Your task to perform on an android device: turn off priority inbox in the gmail app Image 0: 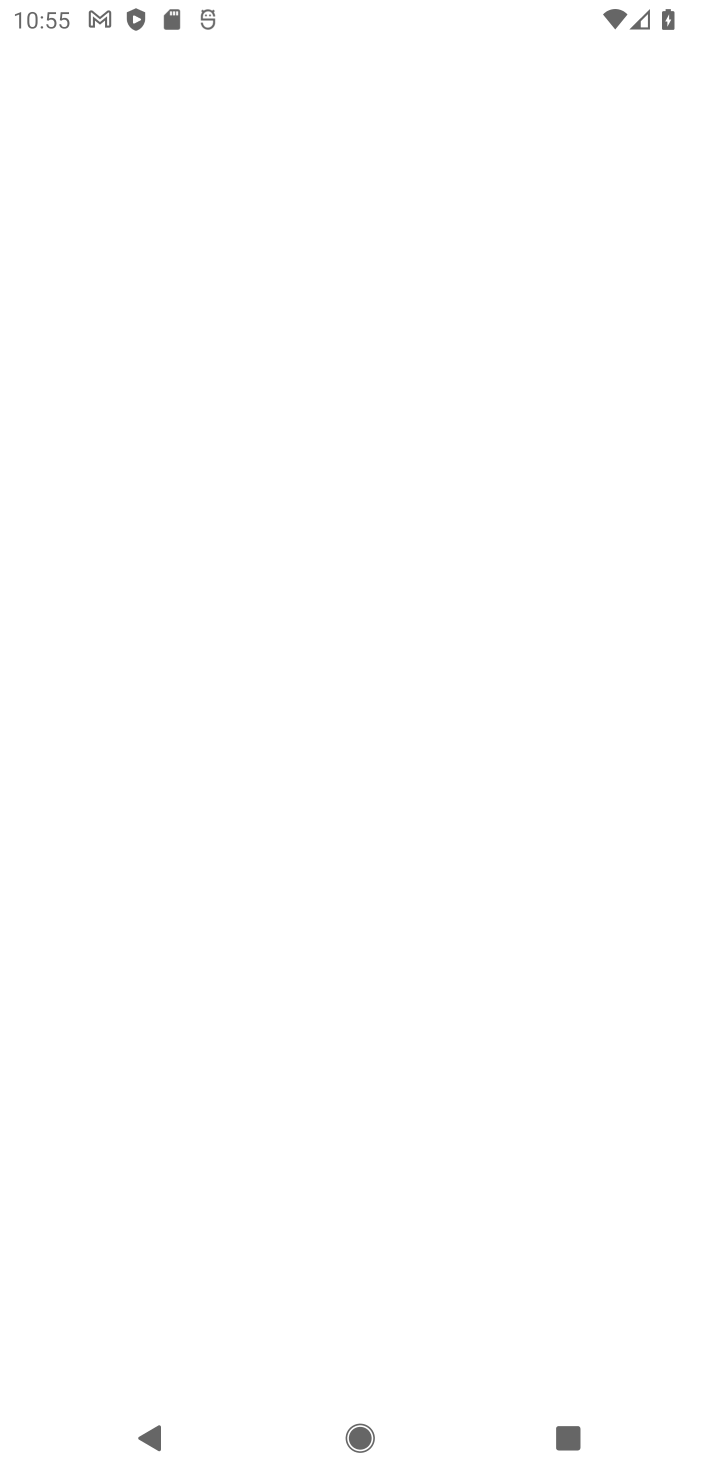
Step 0: press home button
Your task to perform on an android device: turn off priority inbox in the gmail app Image 1: 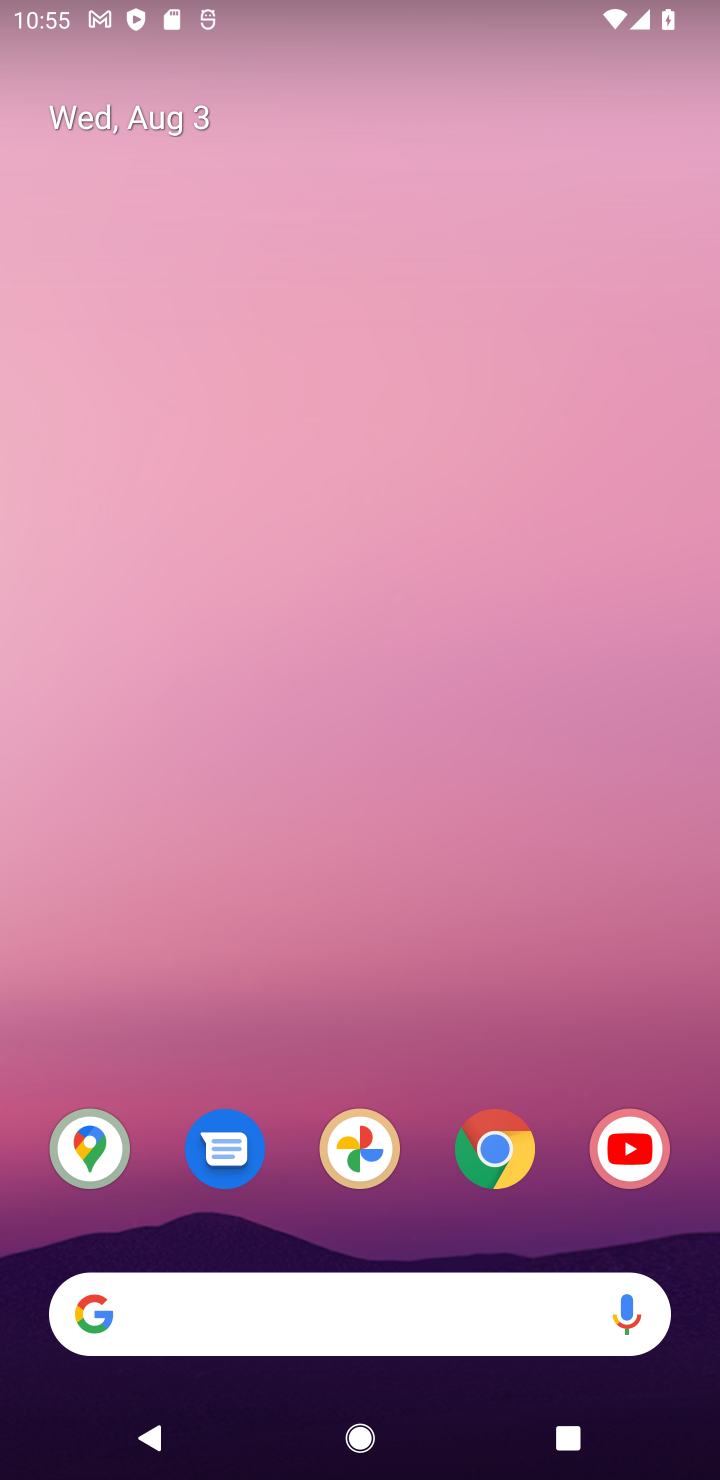
Step 1: drag from (441, 1213) to (320, 225)
Your task to perform on an android device: turn off priority inbox in the gmail app Image 2: 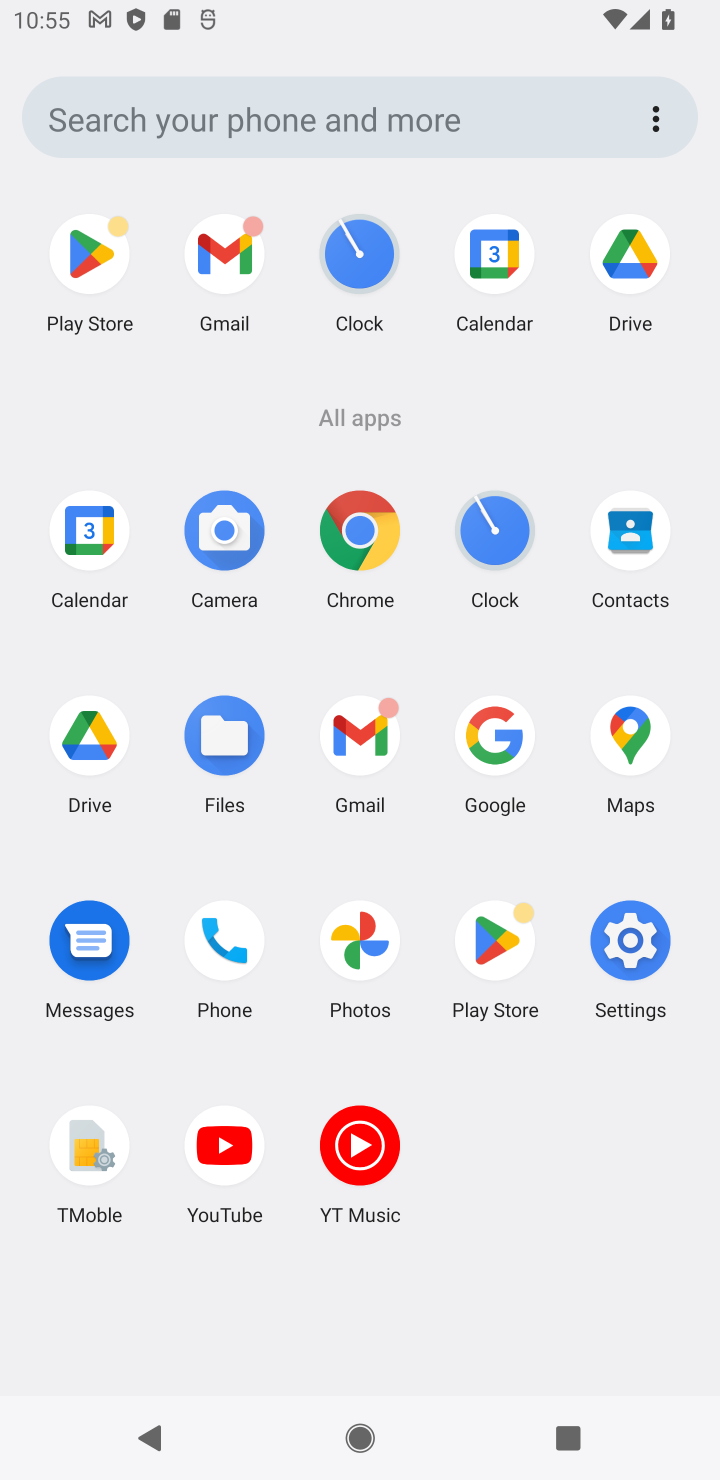
Step 2: click (217, 245)
Your task to perform on an android device: turn off priority inbox in the gmail app Image 3: 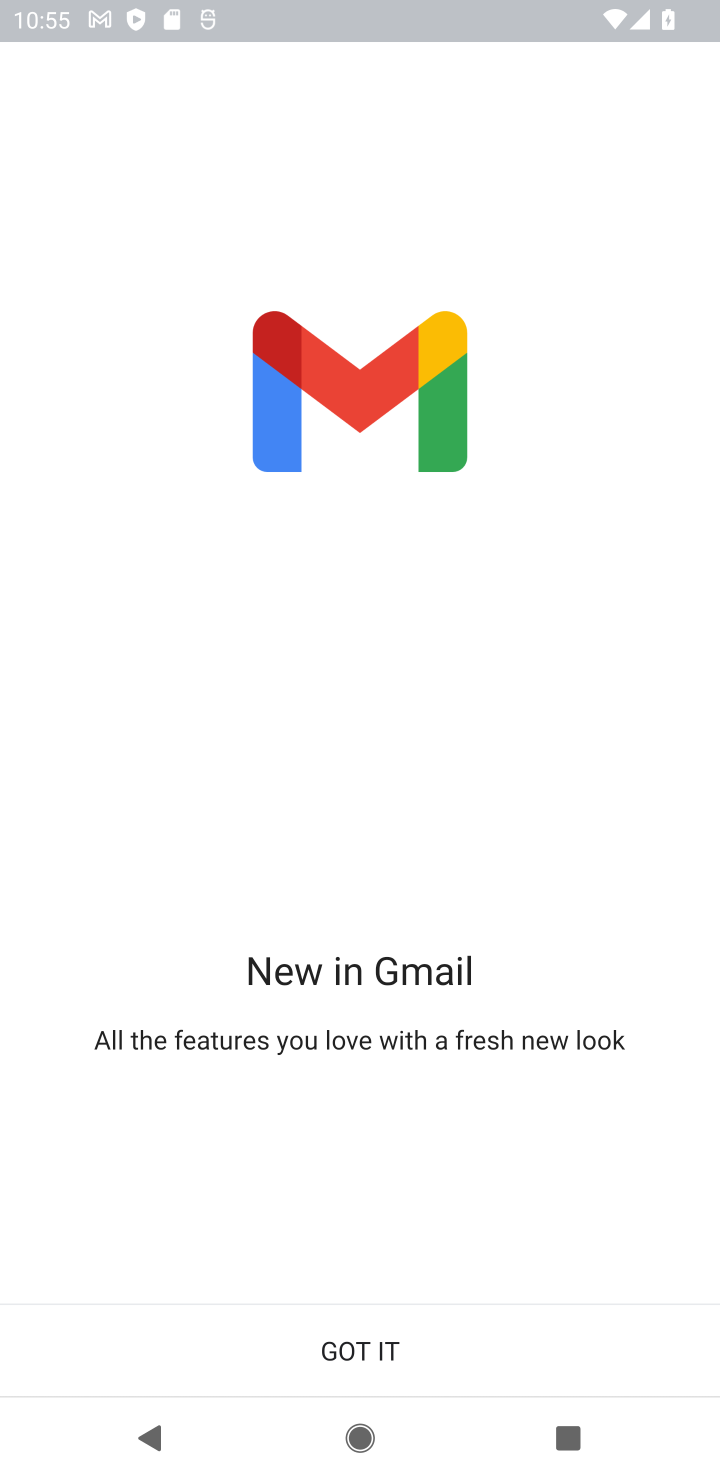
Step 3: click (364, 1351)
Your task to perform on an android device: turn off priority inbox in the gmail app Image 4: 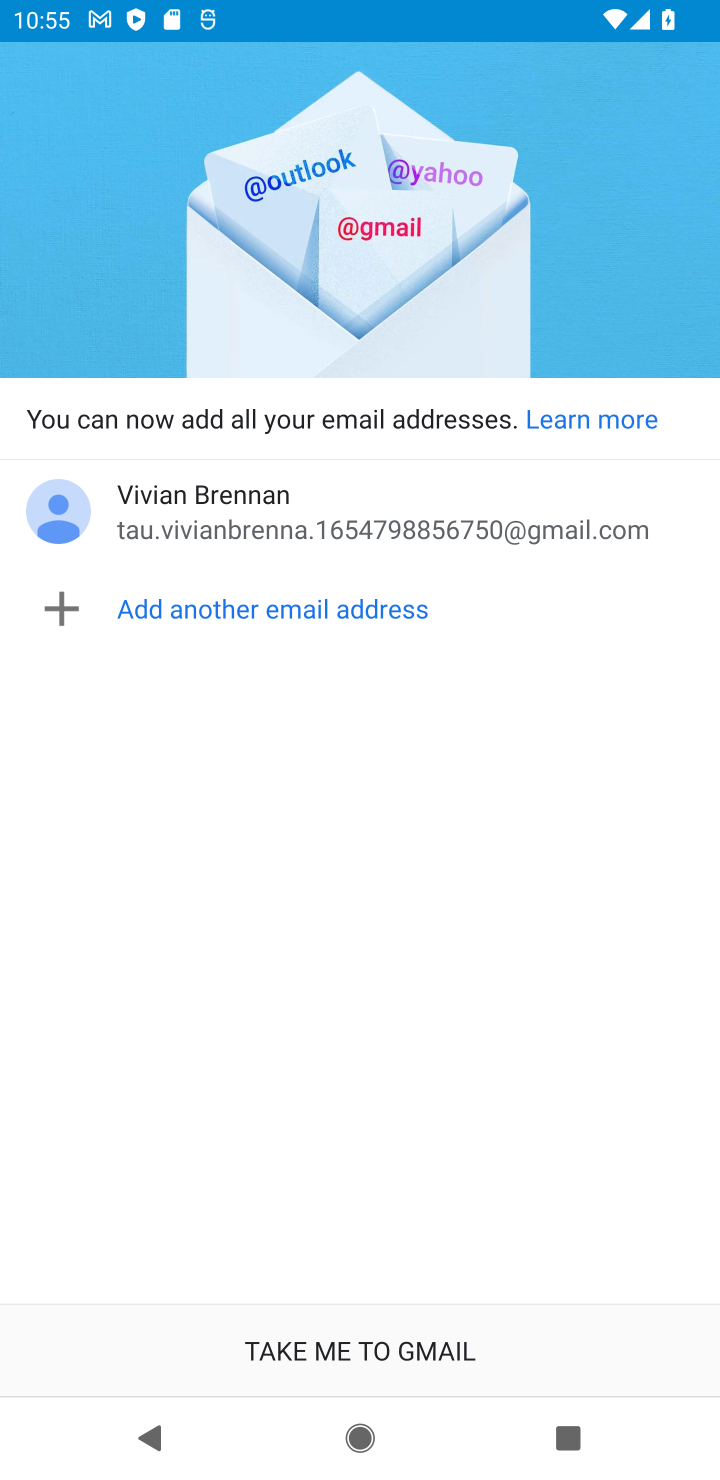
Step 4: click (364, 1351)
Your task to perform on an android device: turn off priority inbox in the gmail app Image 5: 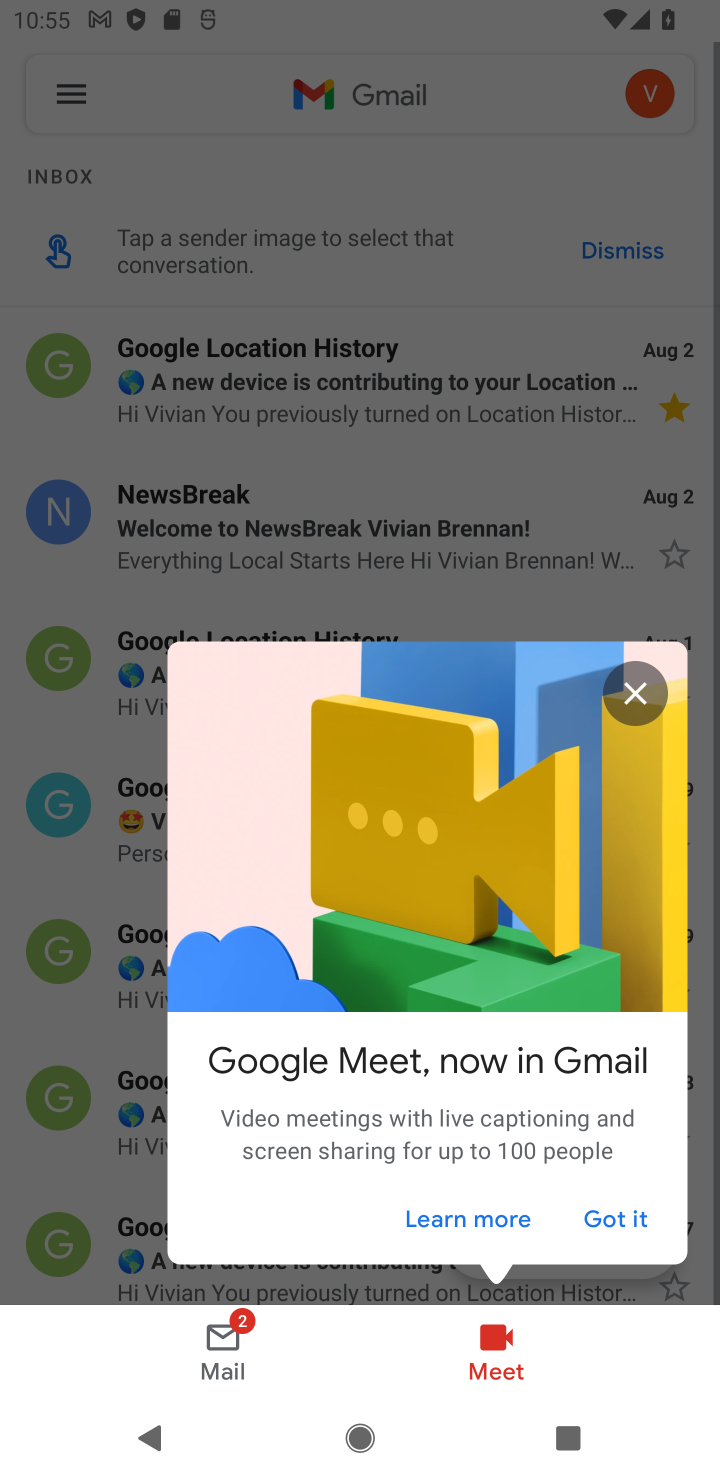
Step 5: click (617, 1227)
Your task to perform on an android device: turn off priority inbox in the gmail app Image 6: 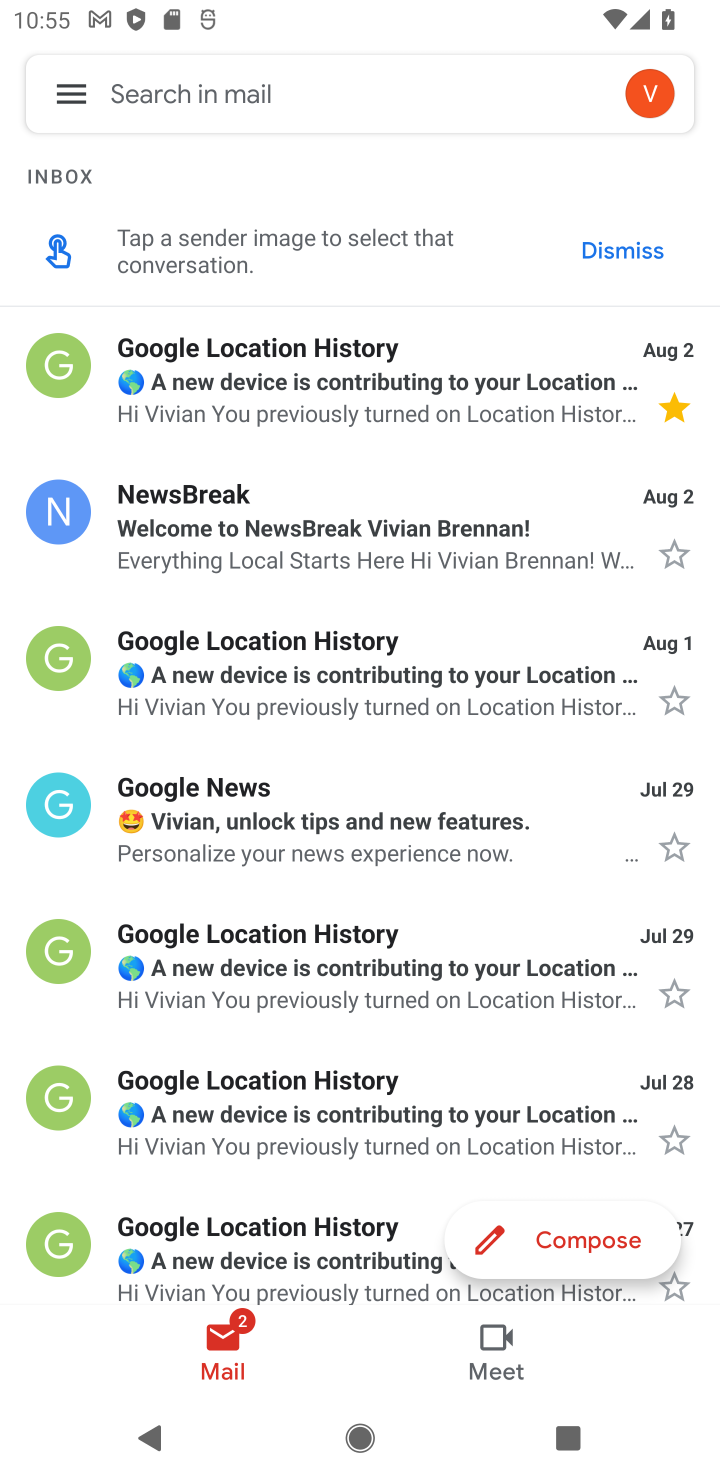
Step 6: click (82, 106)
Your task to perform on an android device: turn off priority inbox in the gmail app Image 7: 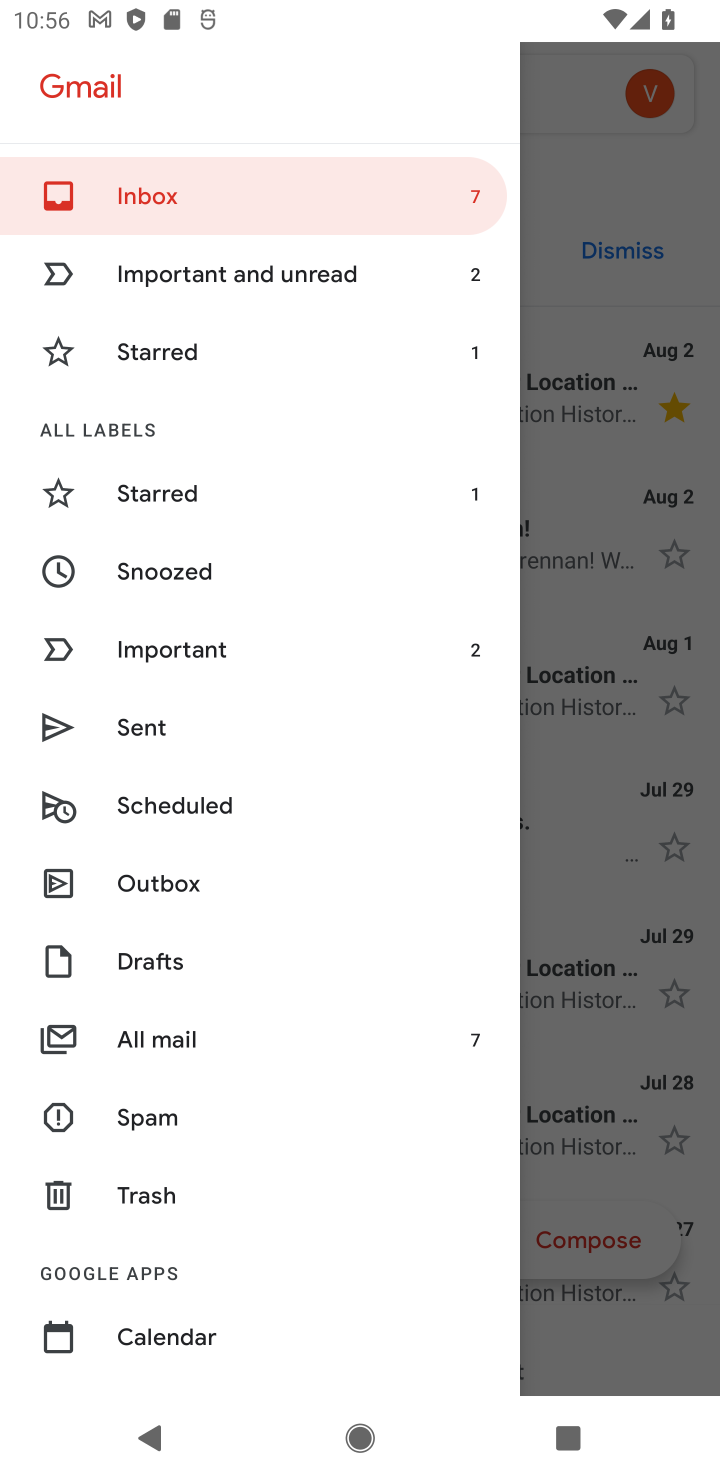
Step 7: drag from (222, 1306) to (241, 534)
Your task to perform on an android device: turn off priority inbox in the gmail app Image 8: 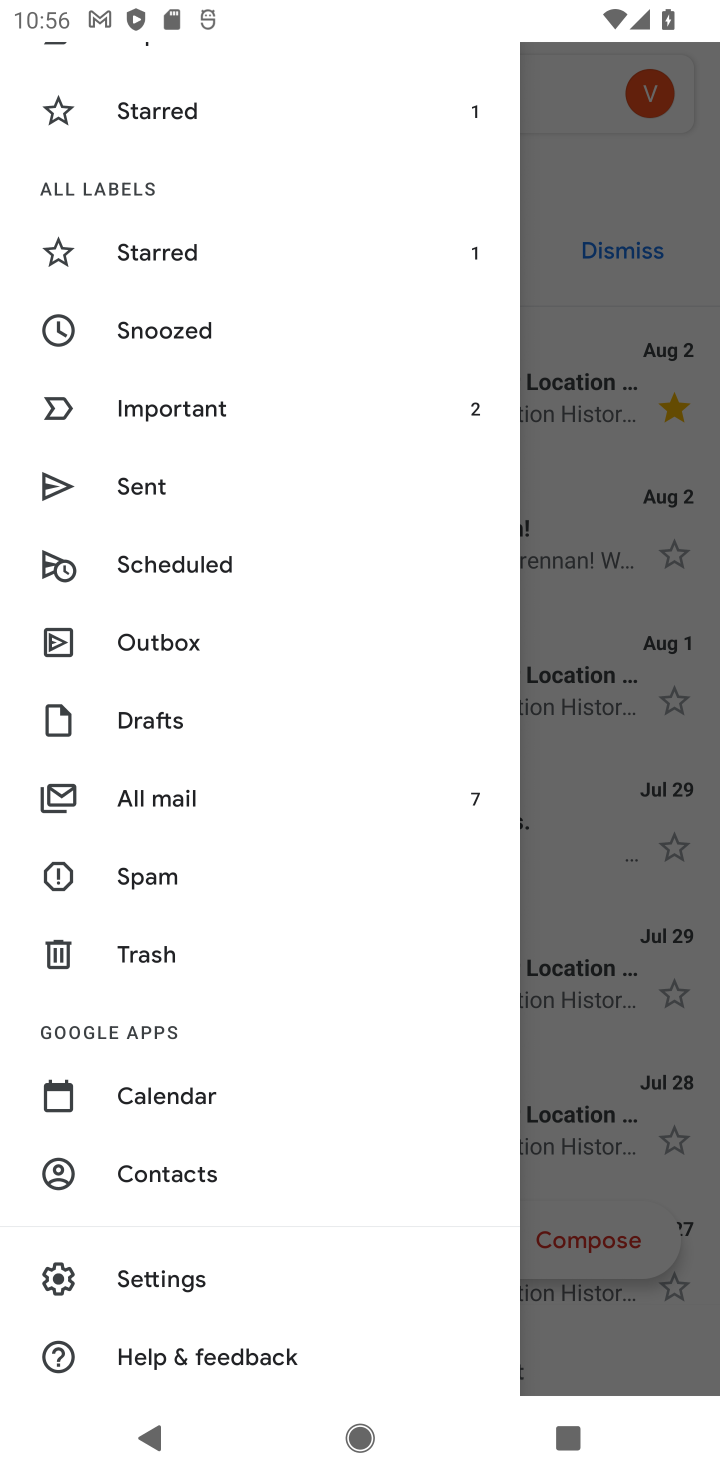
Step 8: click (329, 1282)
Your task to perform on an android device: turn off priority inbox in the gmail app Image 9: 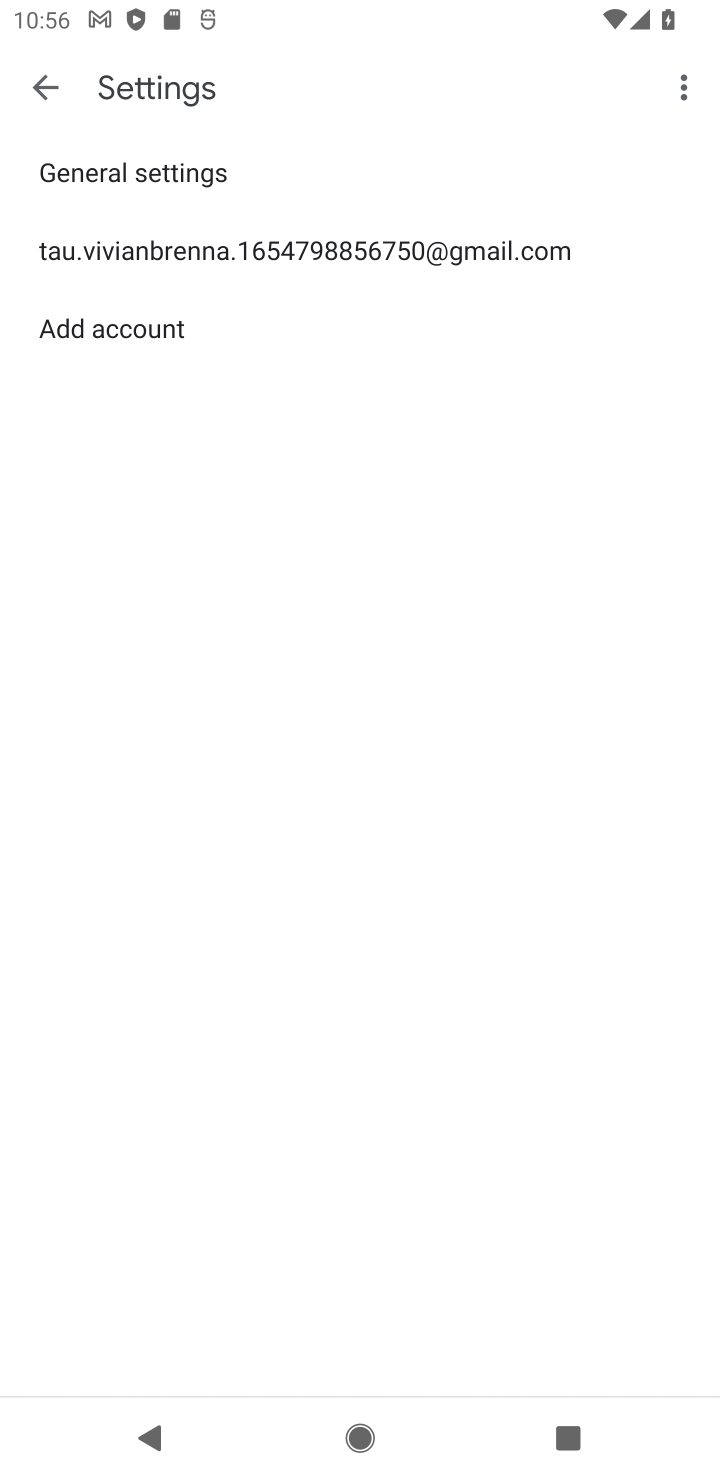
Step 9: click (505, 237)
Your task to perform on an android device: turn off priority inbox in the gmail app Image 10: 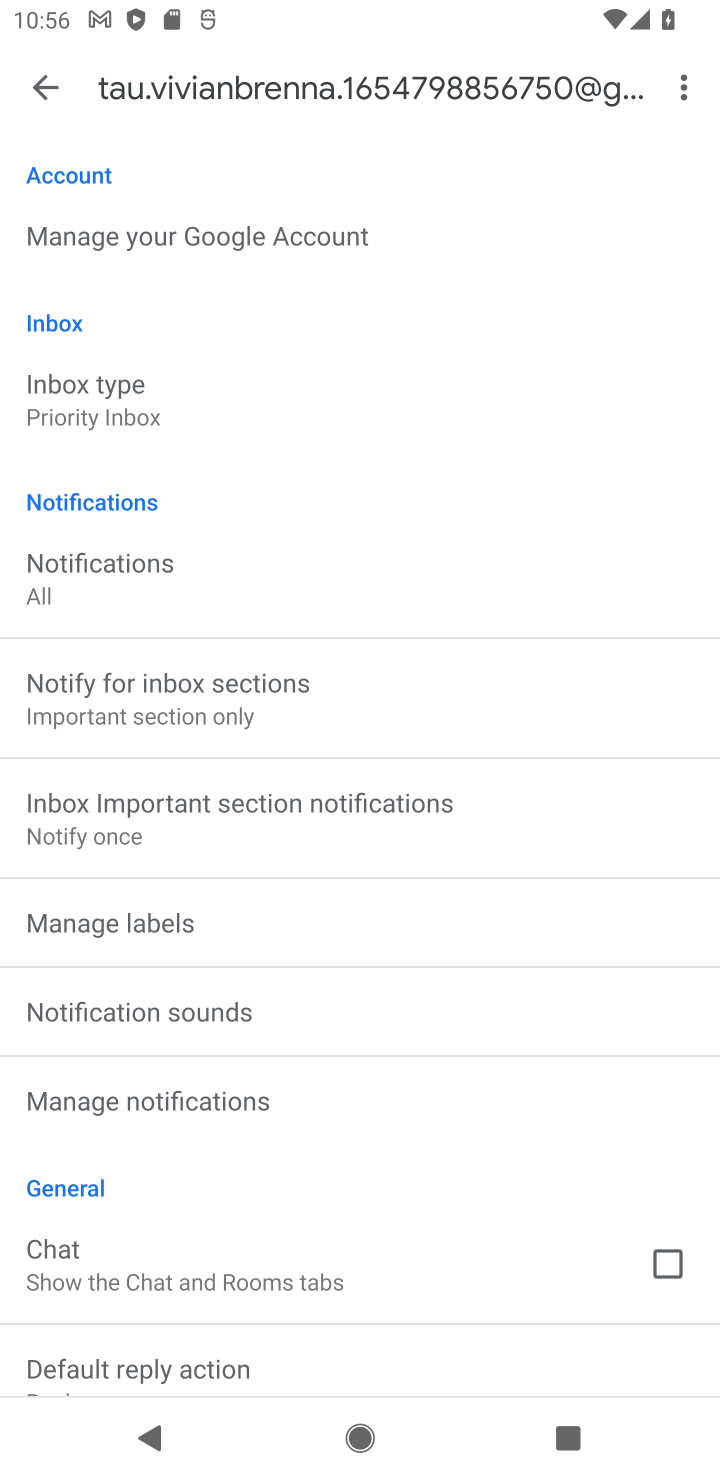
Step 10: click (217, 411)
Your task to perform on an android device: turn off priority inbox in the gmail app Image 11: 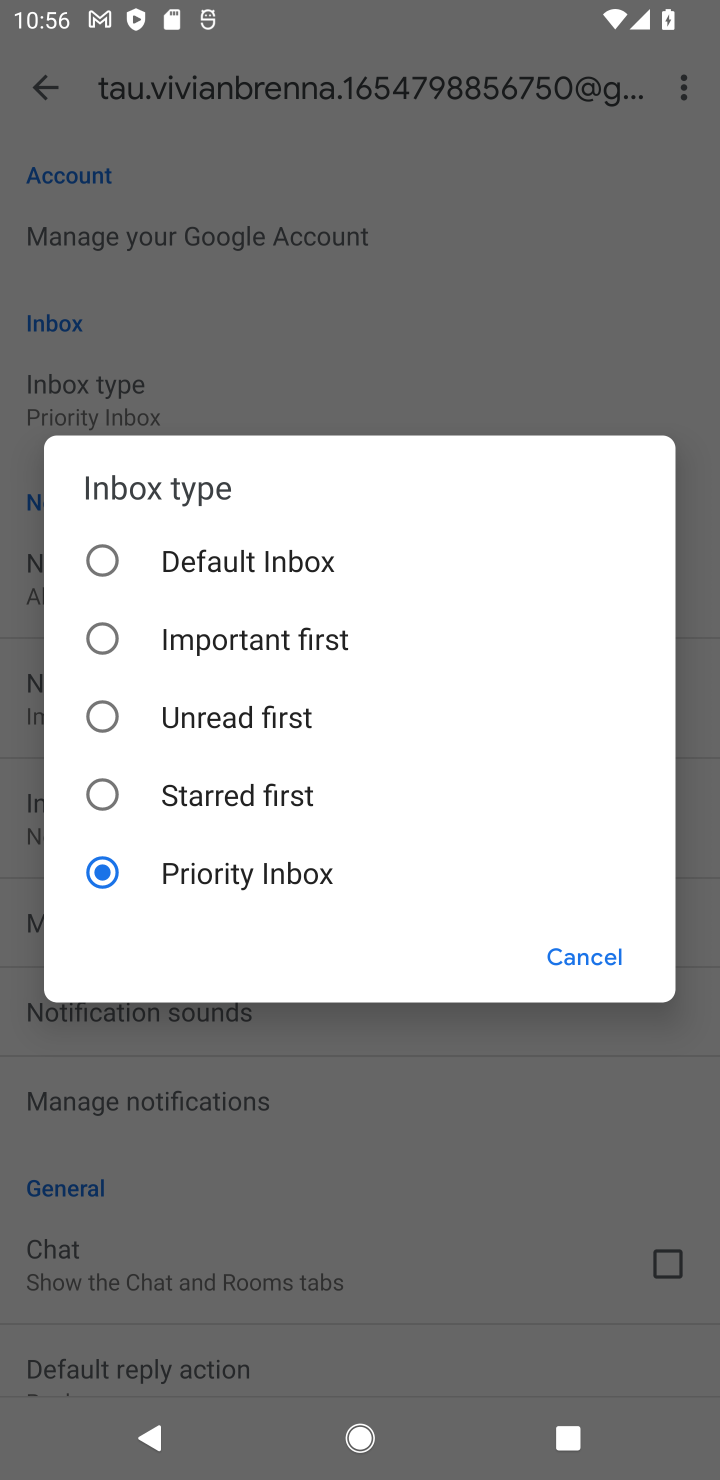
Step 11: click (274, 565)
Your task to perform on an android device: turn off priority inbox in the gmail app Image 12: 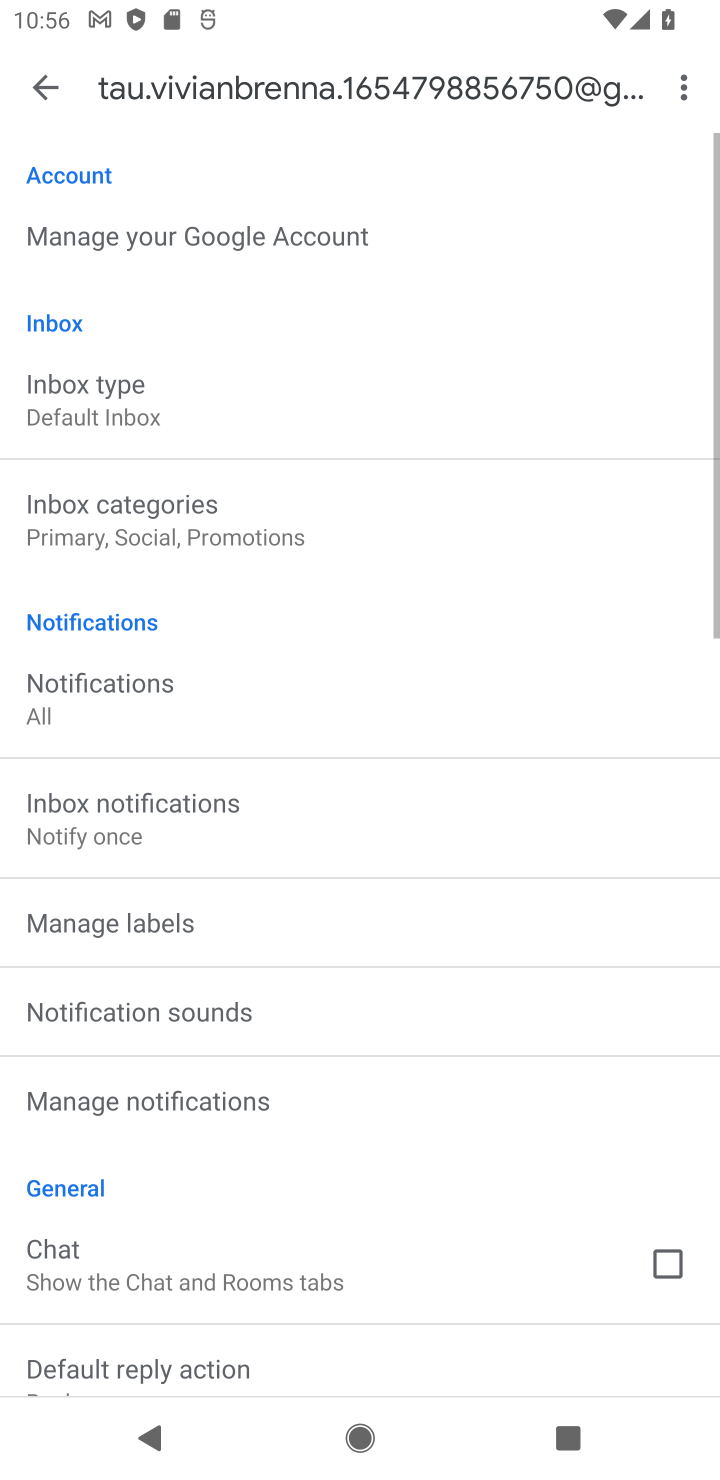
Step 12: task complete